Your task to perform on an android device: turn on sleep mode Image 0: 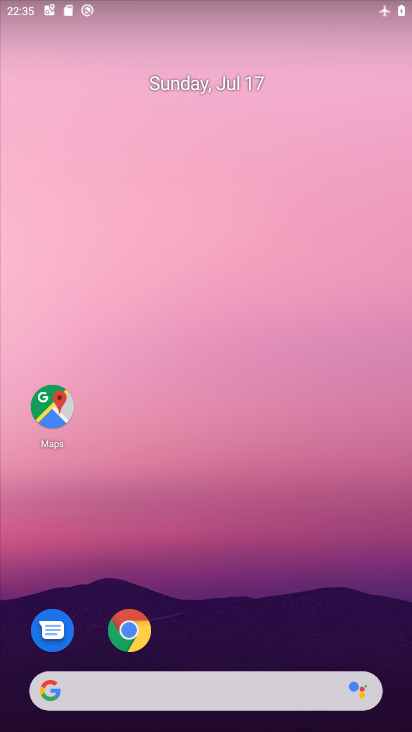
Step 0: drag from (191, 655) to (196, 276)
Your task to perform on an android device: turn on sleep mode Image 1: 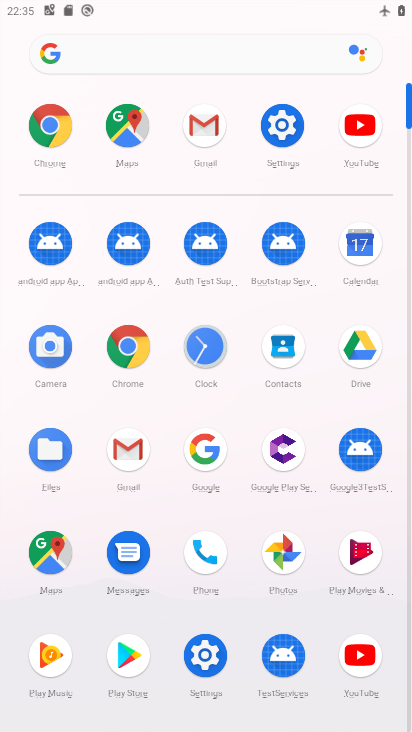
Step 1: click (208, 661)
Your task to perform on an android device: turn on sleep mode Image 2: 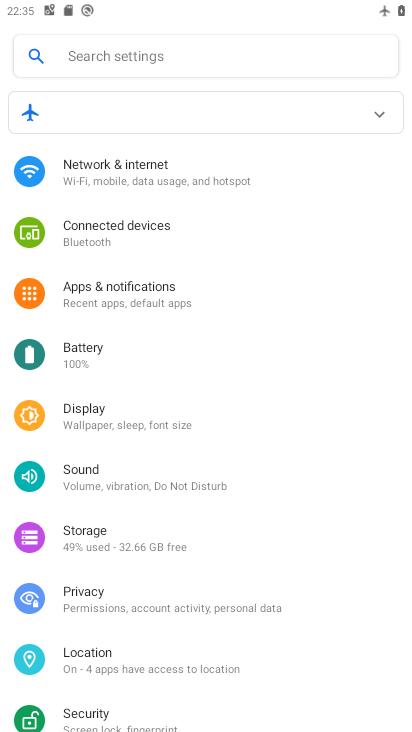
Step 2: click (185, 61)
Your task to perform on an android device: turn on sleep mode Image 3: 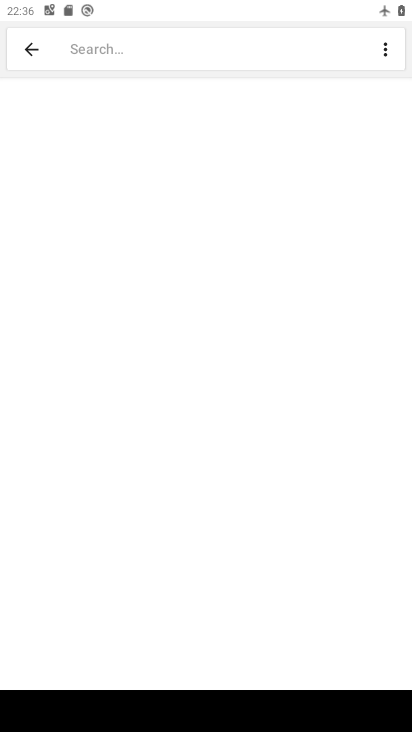
Step 3: type "sleep mode"
Your task to perform on an android device: turn on sleep mode Image 4: 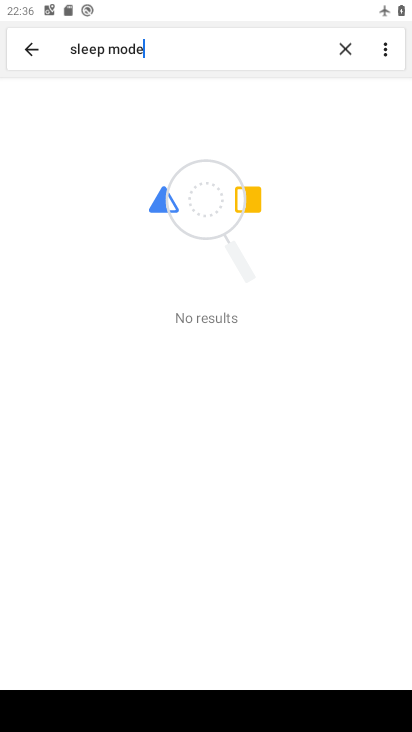
Step 4: task complete